Your task to perform on an android device: turn pop-ups off in chrome Image 0: 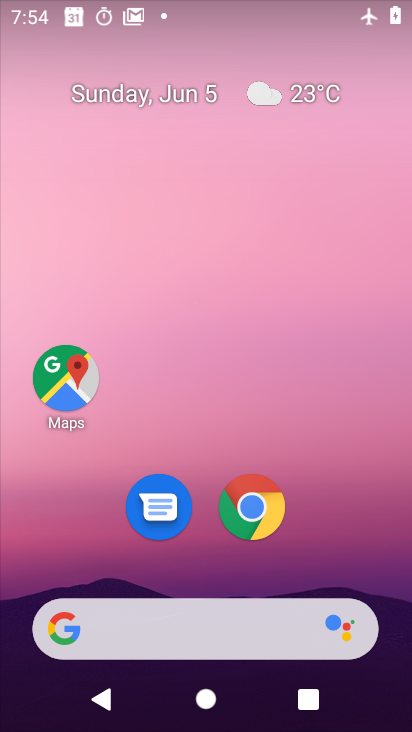
Step 0: drag from (240, 670) to (128, 109)
Your task to perform on an android device: turn pop-ups off in chrome Image 1: 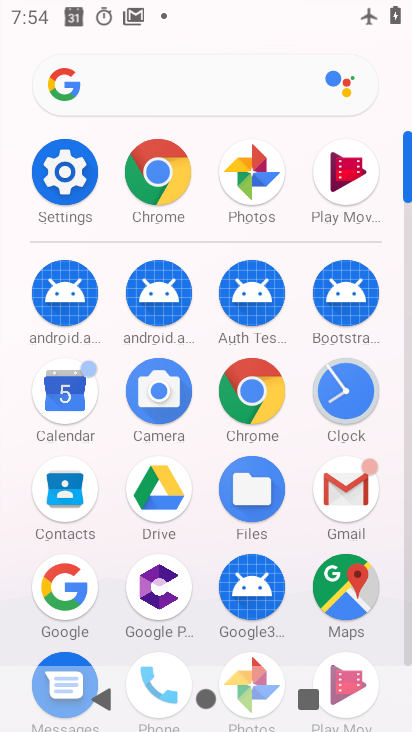
Step 1: click (126, 167)
Your task to perform on an android device: turn pop-ups off in chrome Image 2: 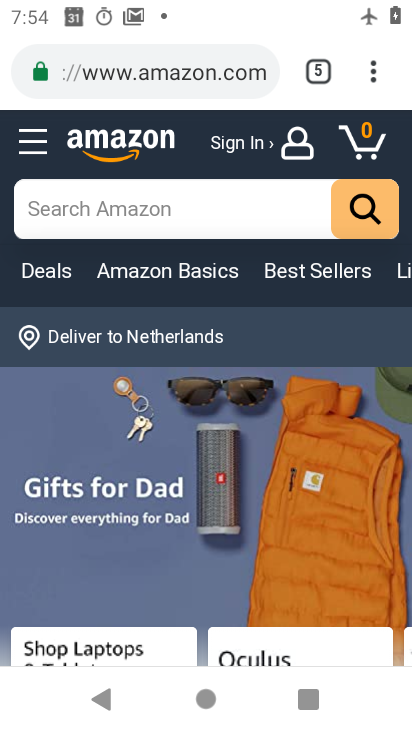
Step 2: click (359, 84)
Your task to perform on an android device: turn pop-ups off in chrome Image 3: 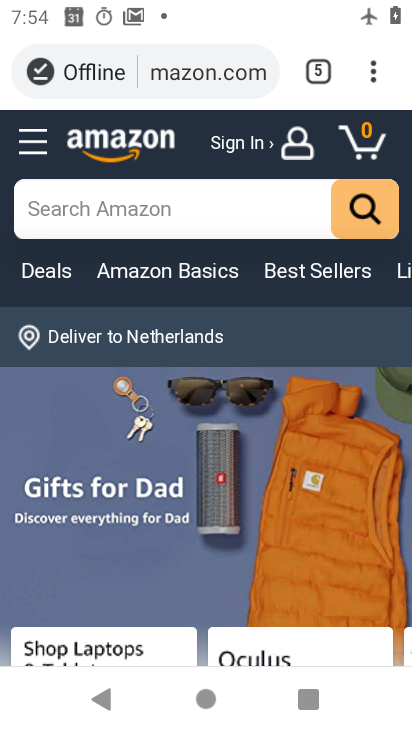
Step 3: click (362, 94)
Your task to perform on an android device: turn pop-ups off in chrome Image 4: 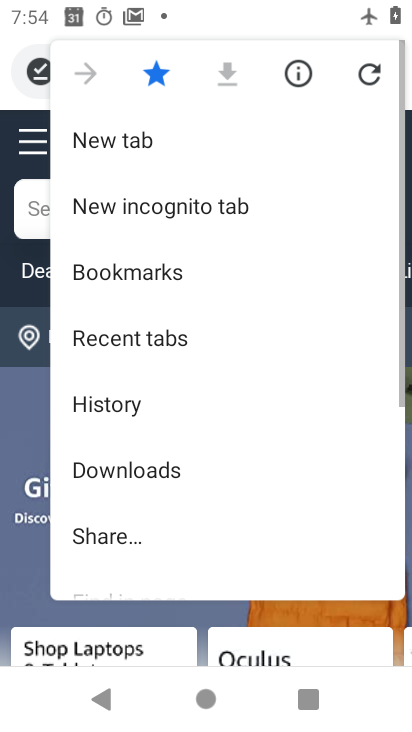
Step 4: drag from (182, 498) to (165, 271)
Your task to perform on an android device: turn pop-ups off in chrome Image 5: 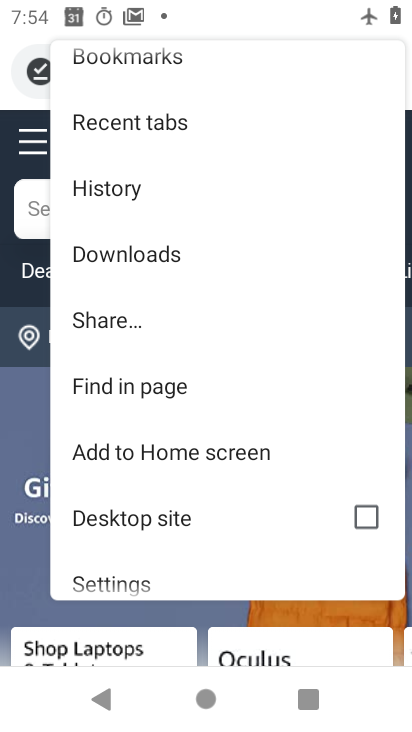
Step 5: click (140, 576)
Your task to perform on an android device: turn pop-ups off in chrome Image 6: 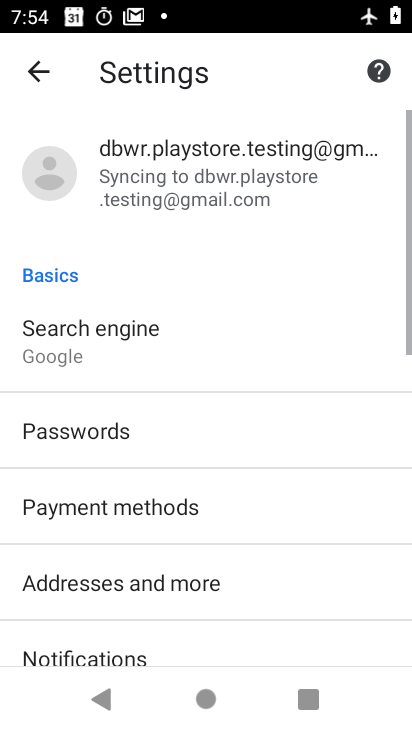
Step 6: drag from (153, 547) to (141, 240)
Your task to perform on an android device: turn pop-ups off in chrome Image 7: 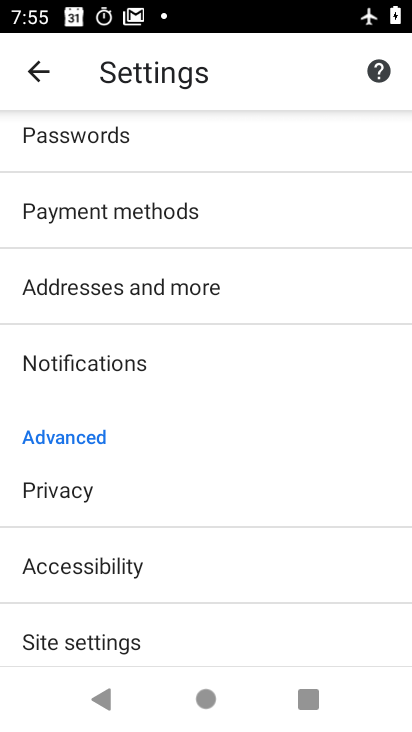
Step 7: click (114, 635)
Your task to perform on an android device: turn pop-ups off in chrome Image 8: 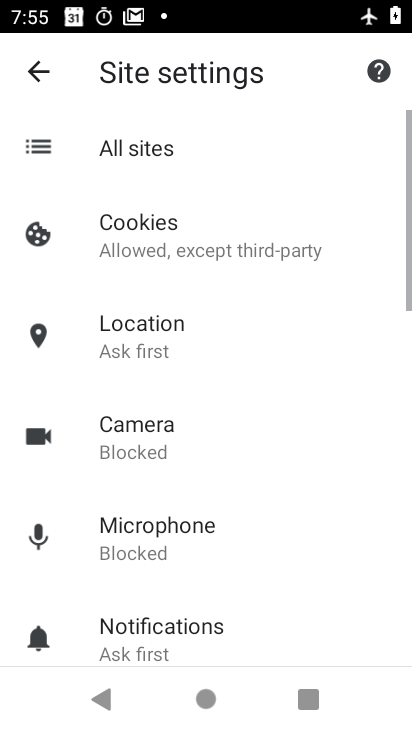
Step 8: drag from (126, 617) to (137, 274)
Your task to perform on an android device: turn pop-ups off in chrome Image 9: 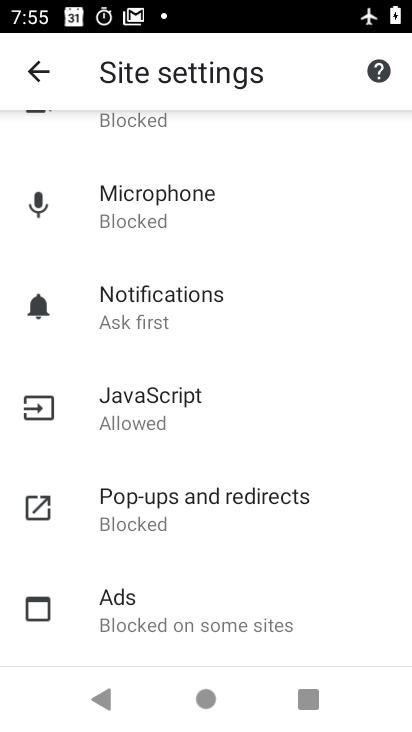
Step 9: click (201, 491)
Your task to perform on an android device: turn pop-ups off in chrome Image 10: 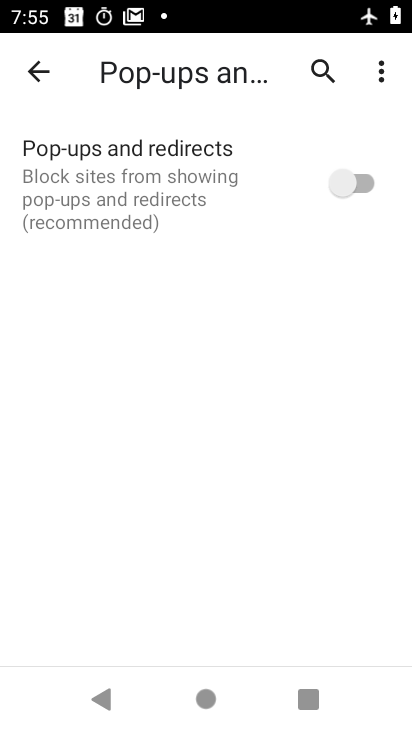
Step 10: click (344, 185)
Your task to perform on an android device: turn pop-ups off in chrome Image 11: 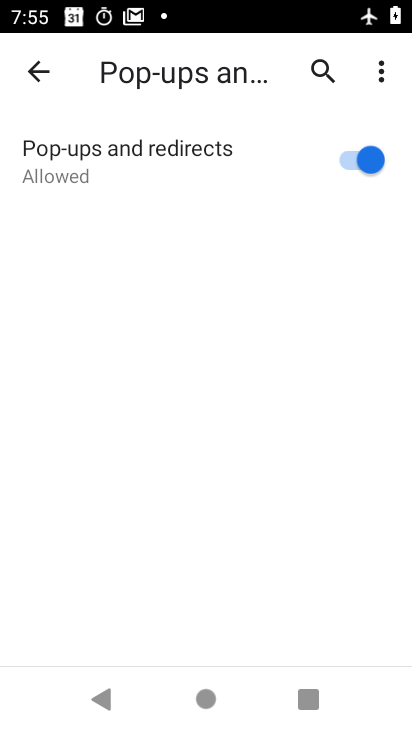
Step 11: click (338, 177)
Your task to perform on an android device: turn pop-ups off in chrome Image 12: 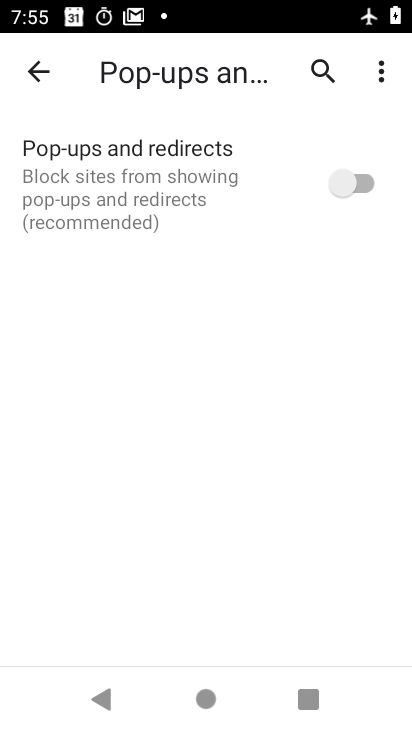
Step 12: task complete